Your task to perform on an android device: Open Youtube and go to the subscriptions tab Image 0: 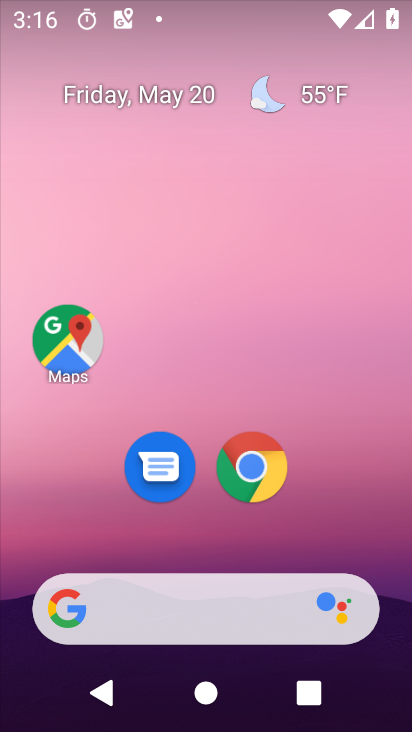
Step 0: drag from (196, 555) to (293, 6)
Your task to perform on an android device: Open Youtube and go to the subscriptions tab Image 1: 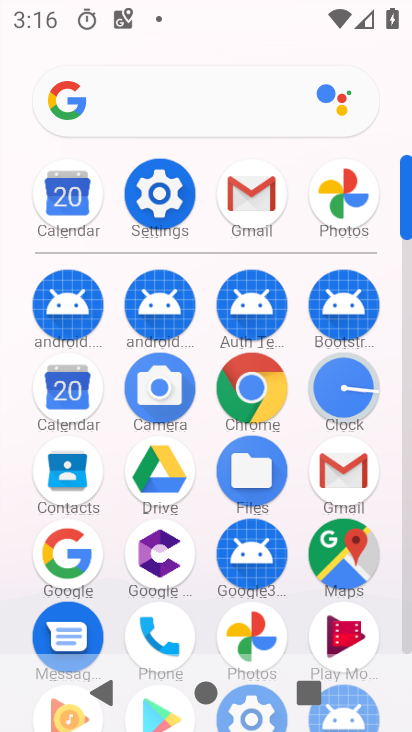
Step 1: drag from (200, 600) to (188, 178)
Your task to perform on an android device: Open Youtube and go to the subscriptions tab Image 2: 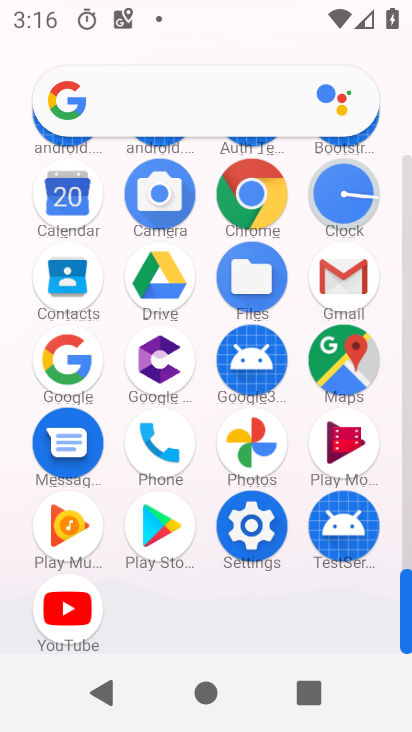
Step 2: click (64, 621)
Your task to perform on an android device: Open Youtube and go to the subscriptions tab Image 3: 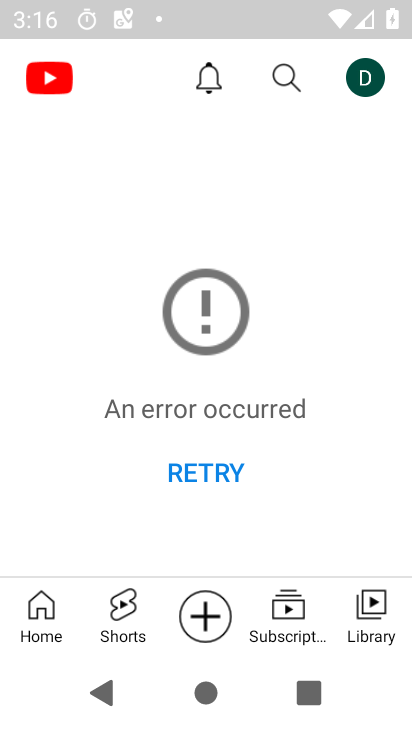
Step 3: click (291, 618)
Your task to perform on an android device: Open Youtube and go to the subscriptions tab Image 4: 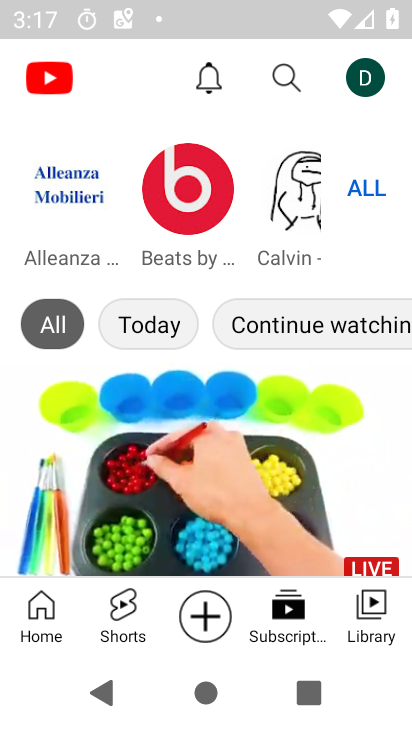
Step 4: task complete